Your task to perform on an android device: check google app version Image 0: 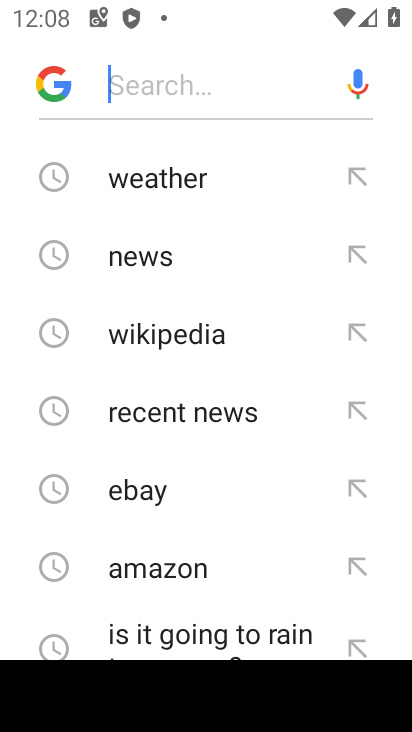
Step 0: press back button
Your task to perform on an android device: check google app version Image 1: 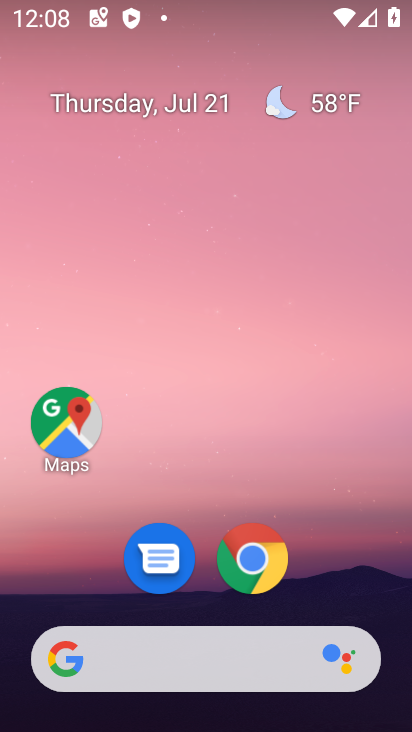
Step 1: drag from (199, 429) to (254, 0)
Your task to perform on an android device: check google app version Image 2: 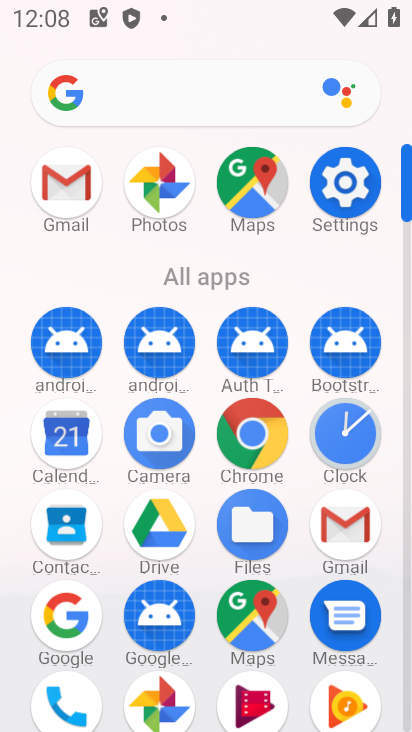
Step 2: click (89, 624)
Your task to perform on an android device: check google app version Image 3: 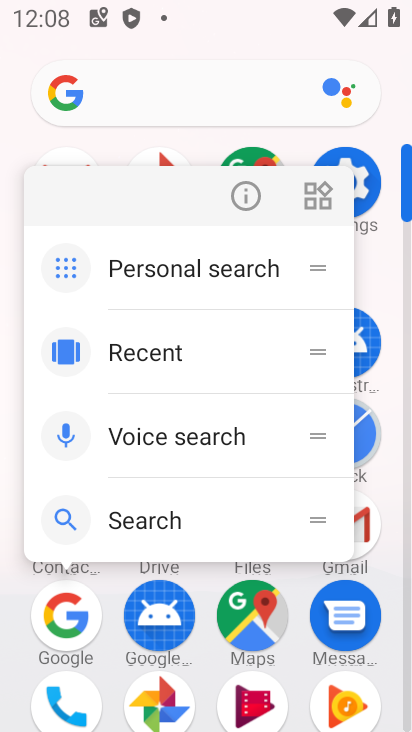
Step 3: click (237, 187)
Your task to perform on an android device: check google app version Image 4: 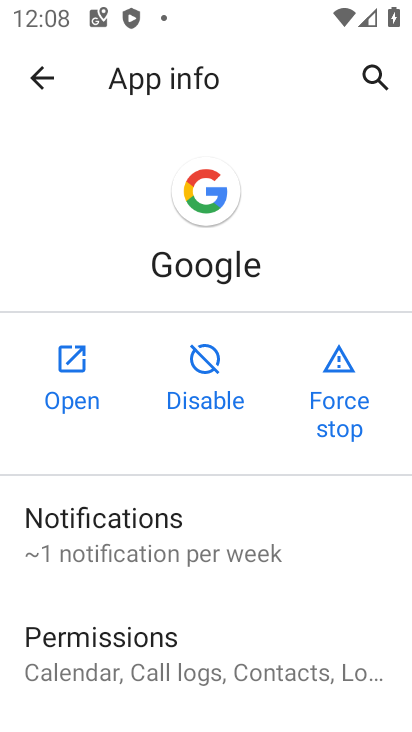
Step 4: drag from (163, 657) to (282, 73)
Your task to perform on an android device: check google app version Image 5: 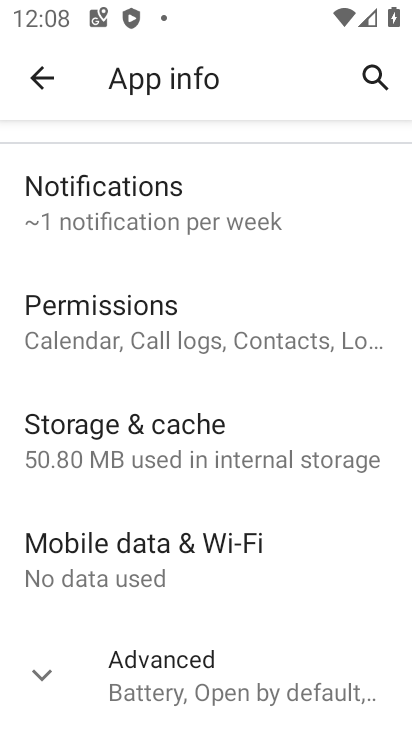
Step 5: drag from (217, 674) to (296, 64)
Your task to perform on an android device: check google app version Image 6: 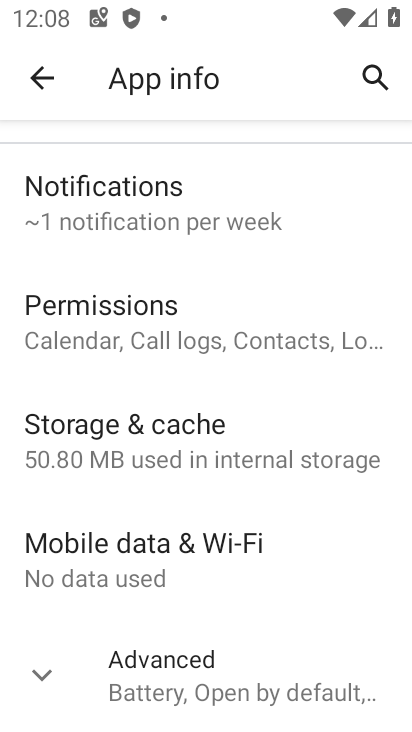
Step 6: drag from (163, 656) to (265, 58)
Your task to perform on an android device: check google app version Image 7: 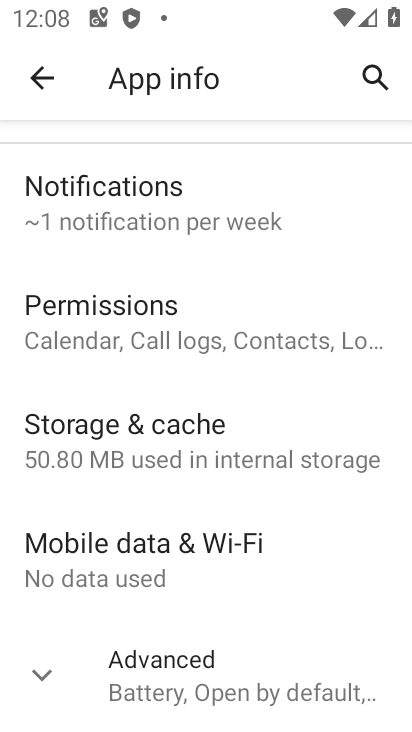
Step 7: click (150, 659)
Your task to perform on an android device: check google app version Image 8: 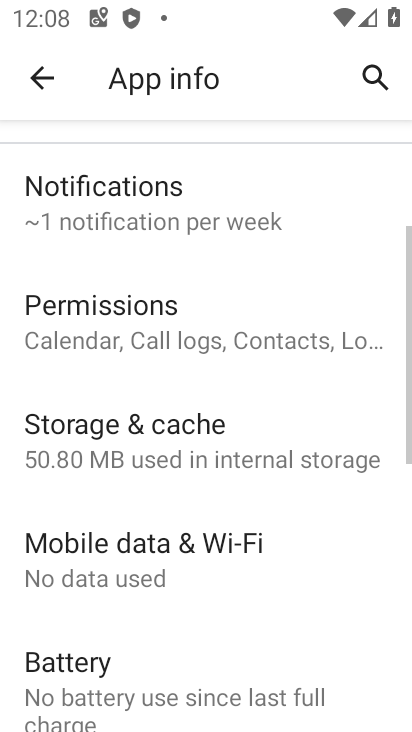
Step 8: task complete